Your task to perform on an android device: turn off airplane mode Image 0: 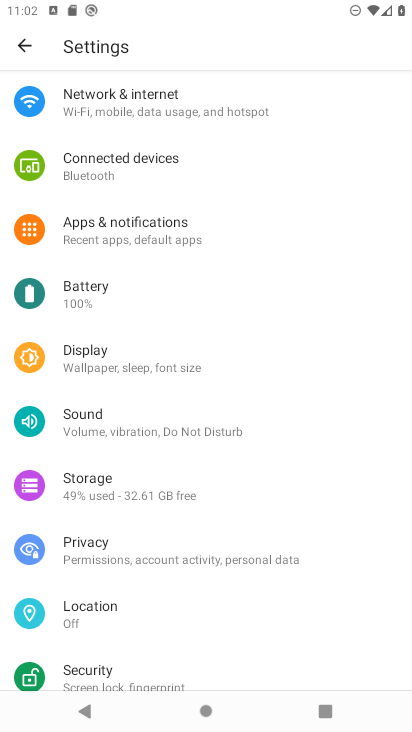
Step 0: press home button
Your task to perform on an android device: turn off airplane mode Image 1: 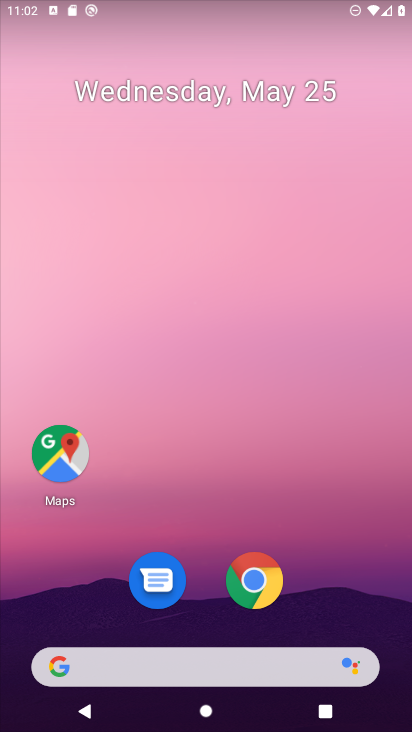
Step 1: drag from (314, 76) to (370, 467)
Your task to perform on an android device: turn off airplane mode Image 2: 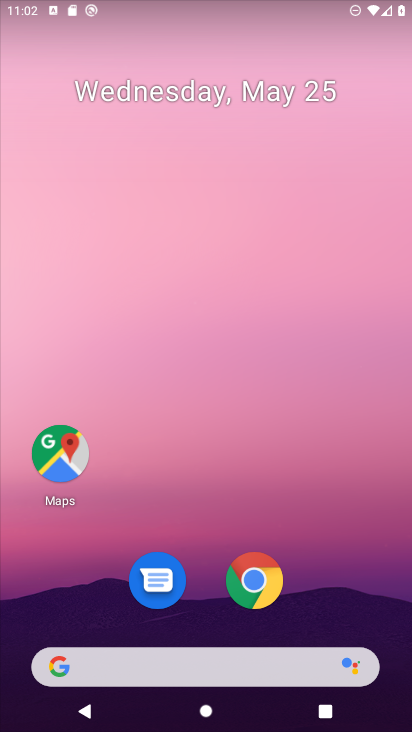
Step 2: drag from (332, 0) to (323, 460)
Your task to perform on an android device: turn off airplane mode Image 3: 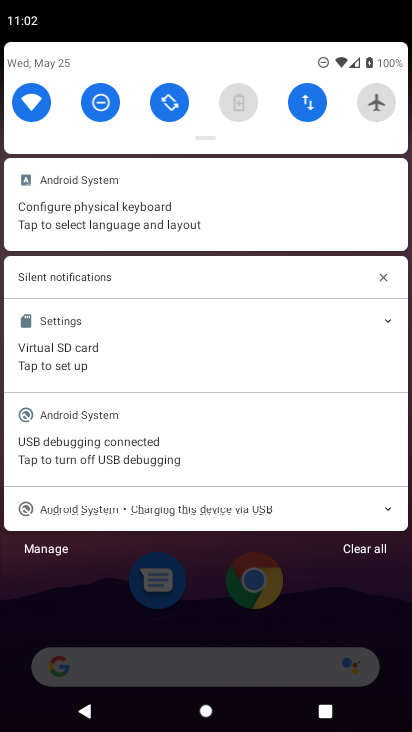
Step 3: click (368, 101)
Your task to perform on an android device: turn off airplane mode Image 4: 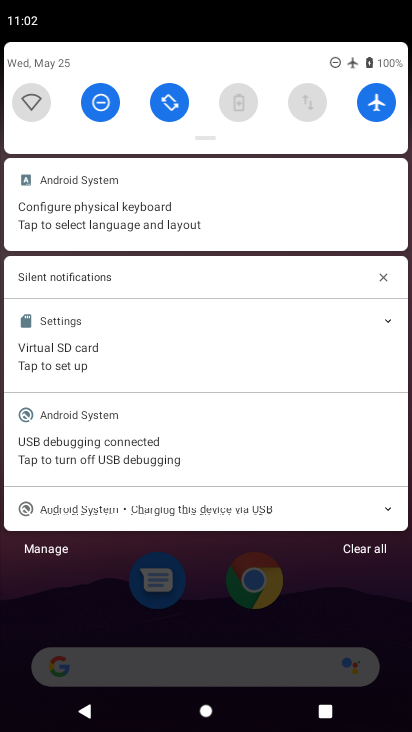
Step 4: click (395, 104)
Your task to perform on an android device: turn off airplane mode Image 5: 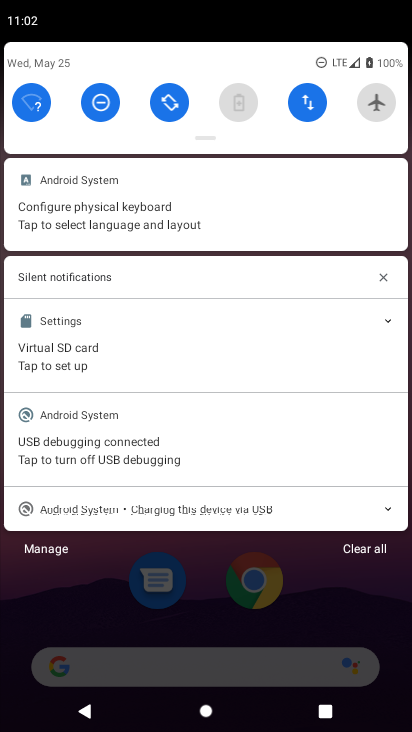
Step 5: task complete